Your task to perform on an android device: open app "Microsoft Outlook" (install if not already installed) Image 0: 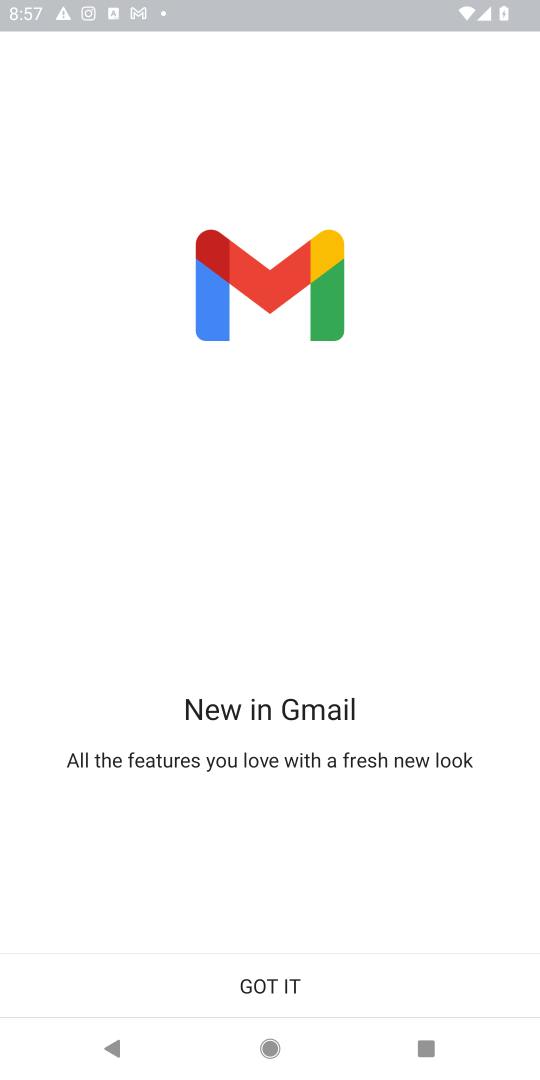
Step 0: press home button
Your task to perform on an android device: open app "Microsoft Outlook" (install if not already installed) Image 1: 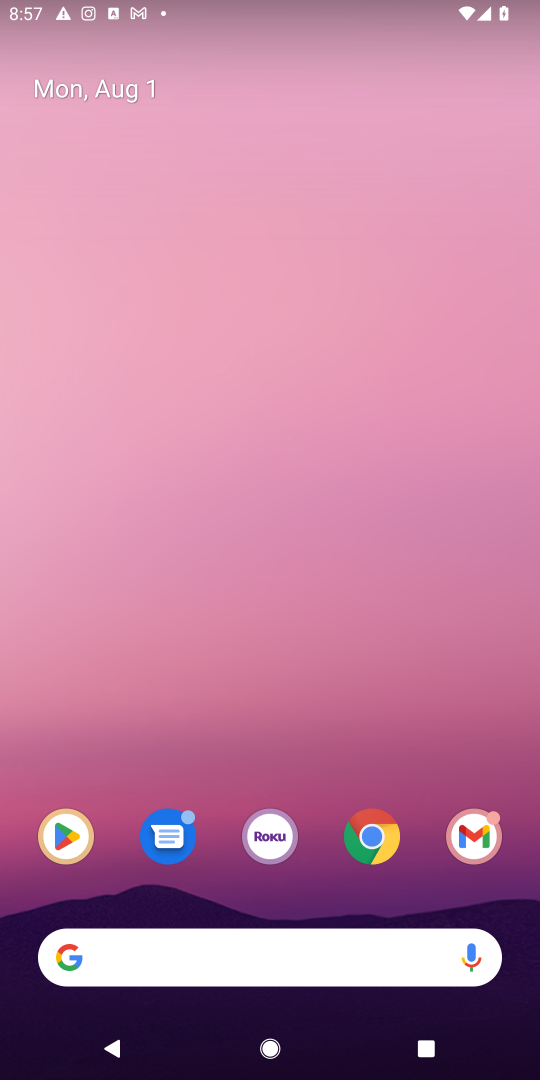
Step 1: click (55, 822)
Your task to perform on an android device: open app "Microsoft Outlook" (install if not already installed) Image 2: 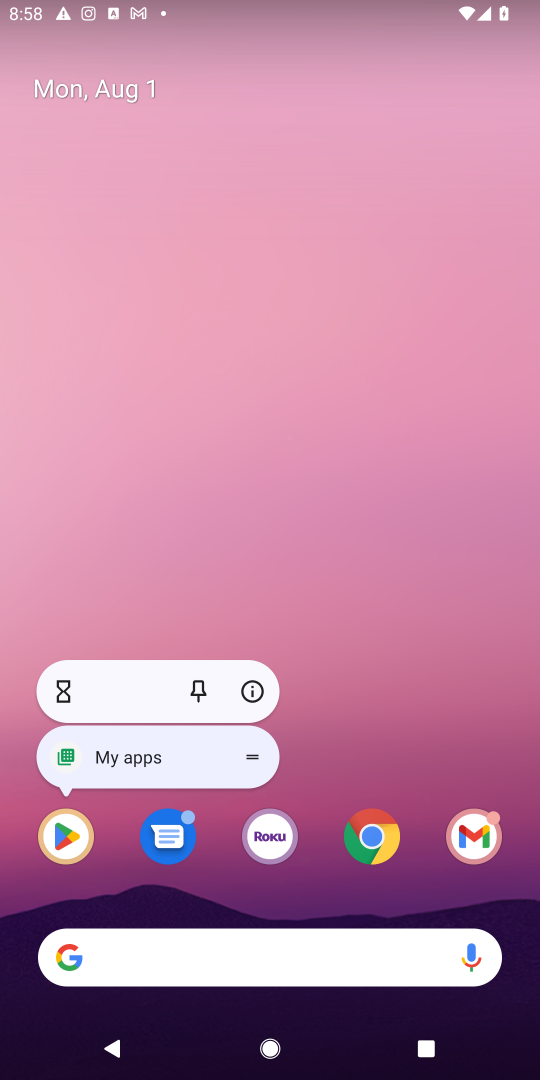
Step 2: click (59, 830)
Your task to perform on an android device: open app "Microsoft Outlook" (install if not already installed) Image 3: 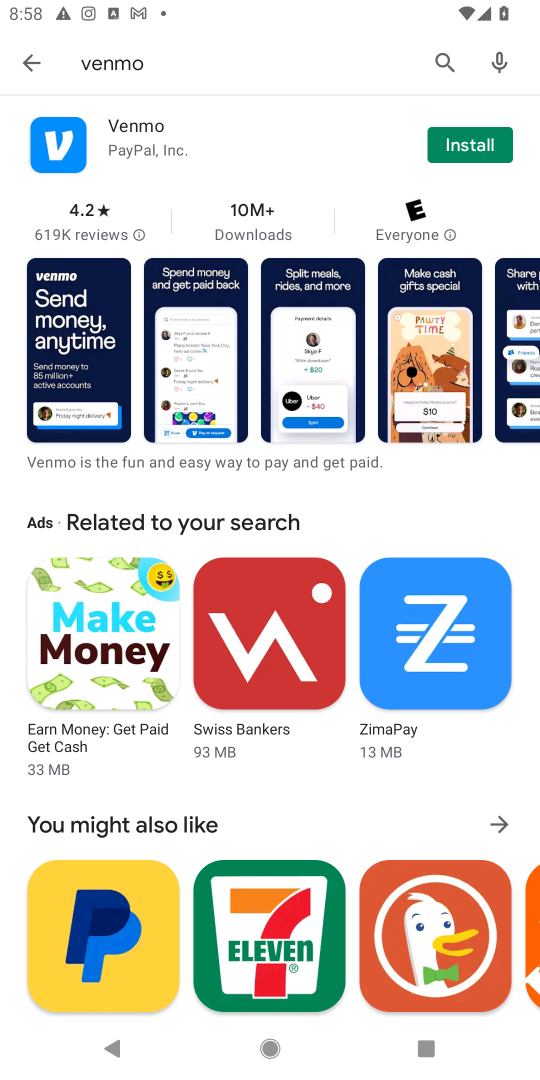
Step 3: click (437, 52)
Your task to perform on an android device: open app "Microsoft Outlook" (install if not already installed) Image 4: 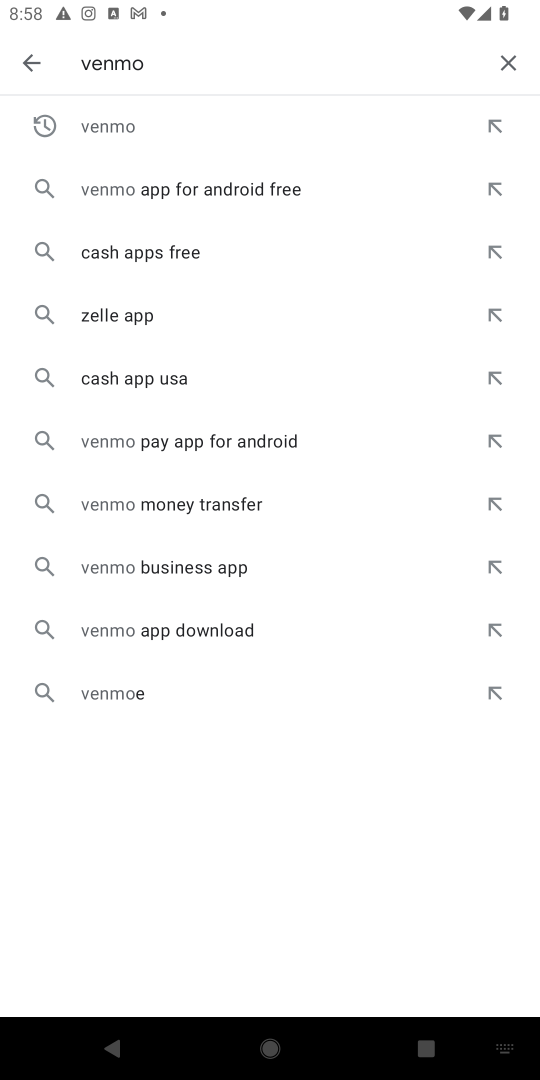
Step 4: click (501, 55)
Your task to perform on an android device: open app "Microsoft Outlook" (install if not already installed) Image 5: 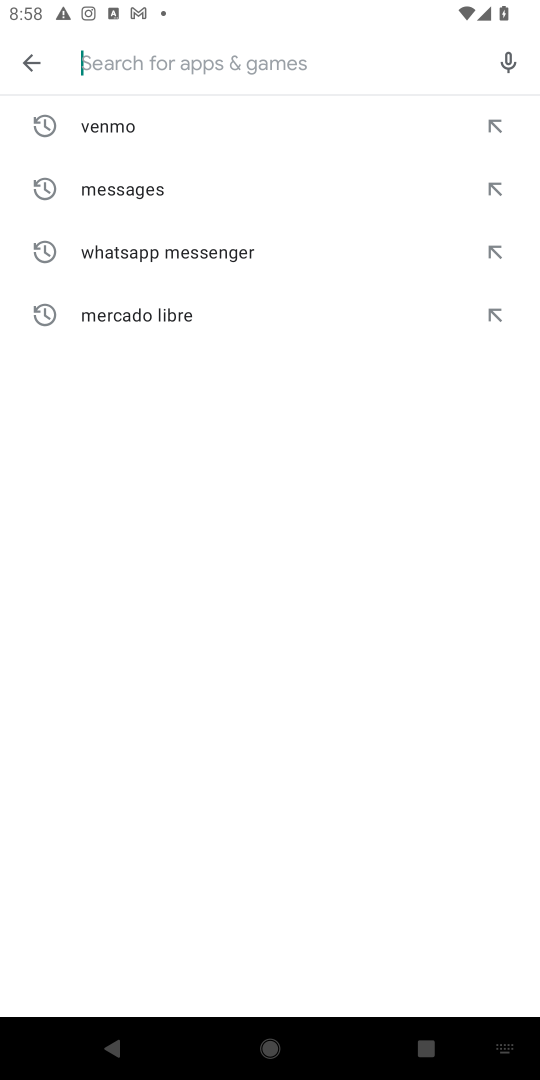
Step 5: type "Microsoft Outlook"
Your task to perform on an android device: open app "Microsoft Outlook" (install if not already installed) Image 6: 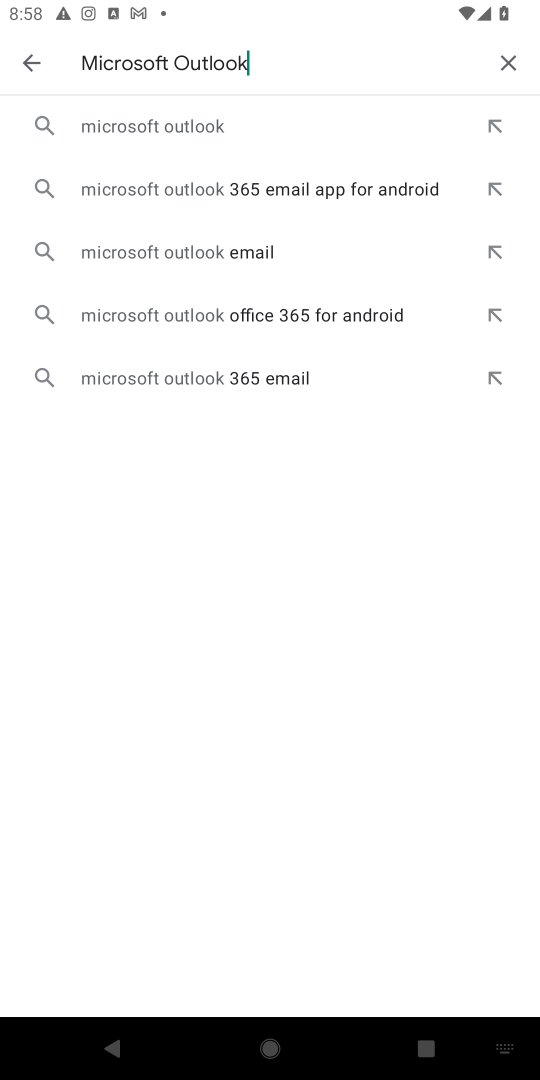
Step 6: click (197, 126)
Your task to perform on an android device: open app "Microsoft Outlook" (install if not already installed) Image 7: 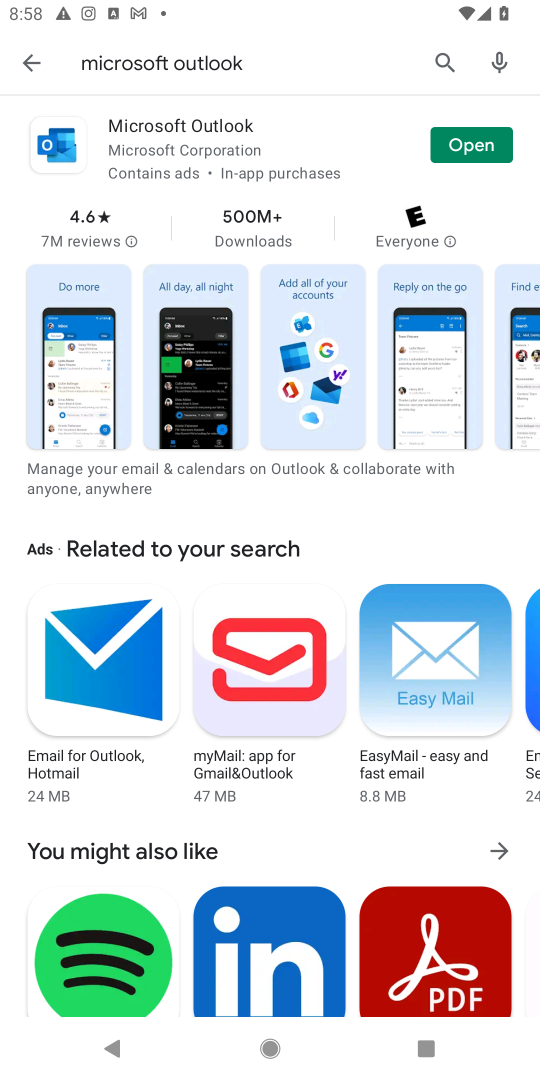
Step 7: click (472, 145)
Your task to perform on an android device: open app "Microsoft Outlook" (install if not already installed) Image 8: 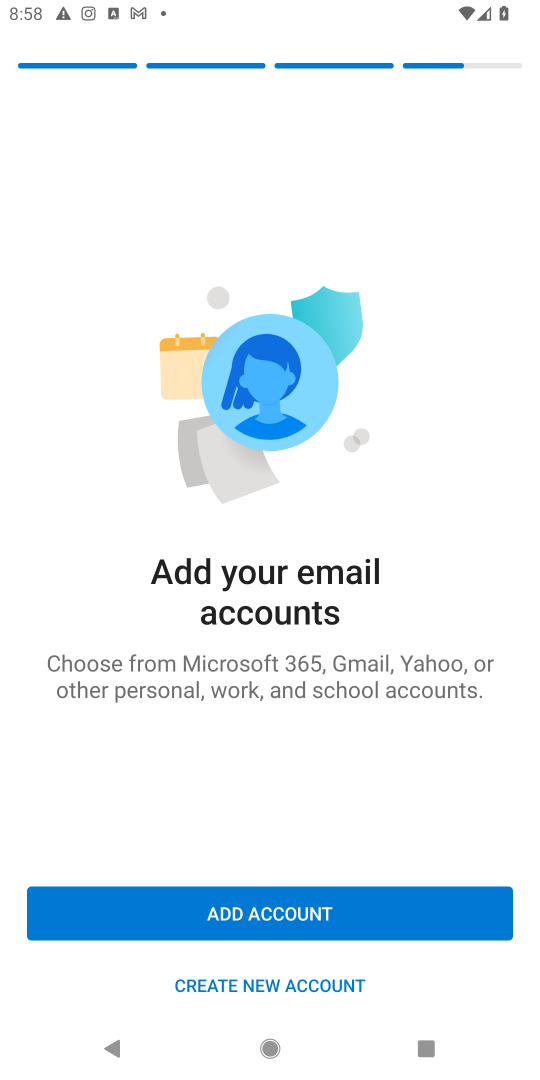
Step 8: task complete